Your task to perform on an android device: Open Maps and search for coffee Image 0: 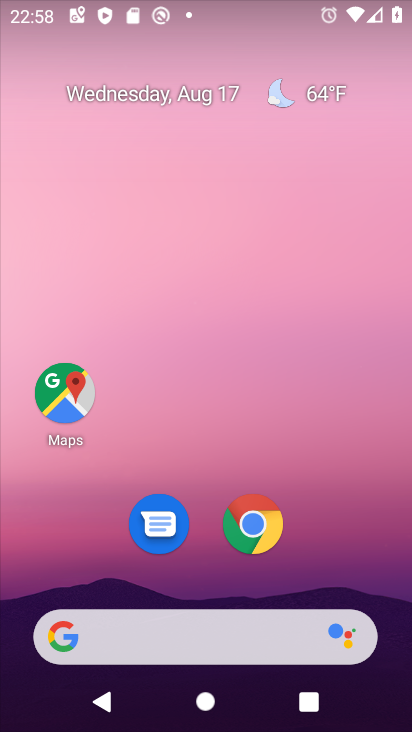
Step 0: click (70, 389)
Your task to perform on an android device: Open Maps and search for coffee Image 1: 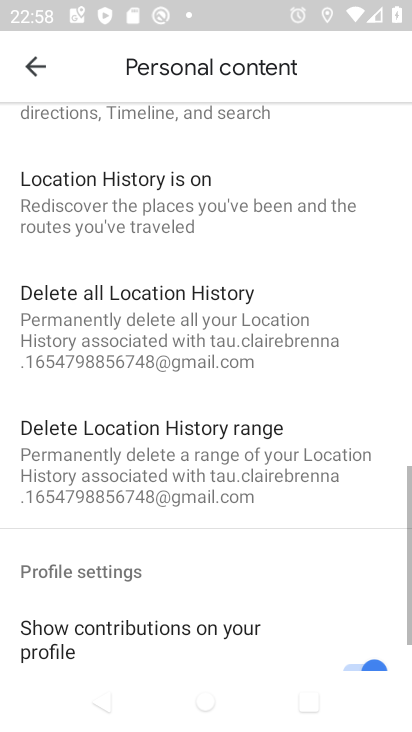
Step 1: click (39, 66)
Your task to perform on an android device: Open Maps and search for coffee Image 2: 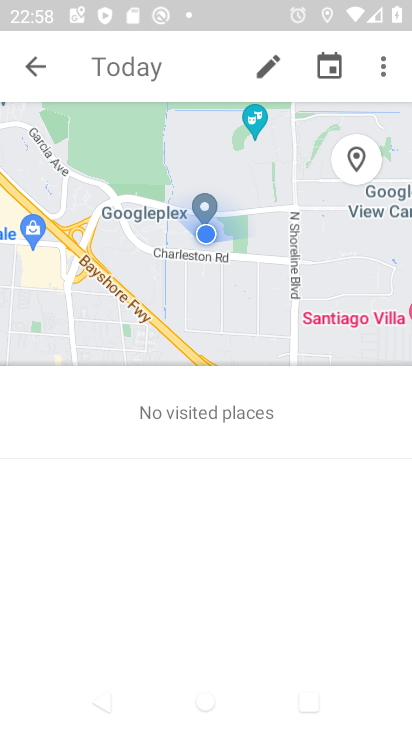
Step 2: click (39, 66)
Your task to perform on an android device: Open Maps and search for coffee Image 3: 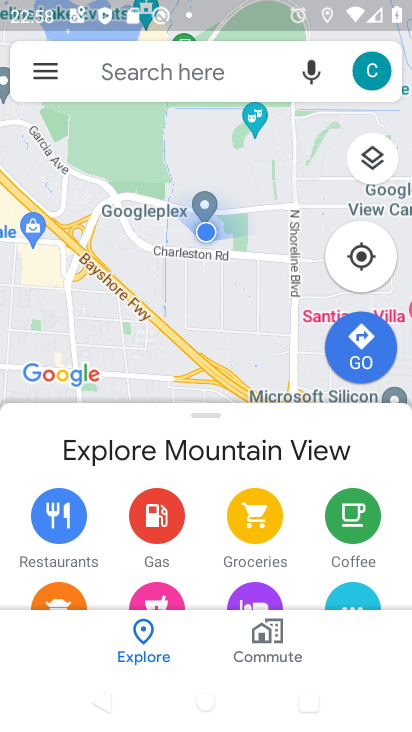
Step 3: click (132, 65)
Your task to perform on an android device: Open Maps and search for coffee Image 4: 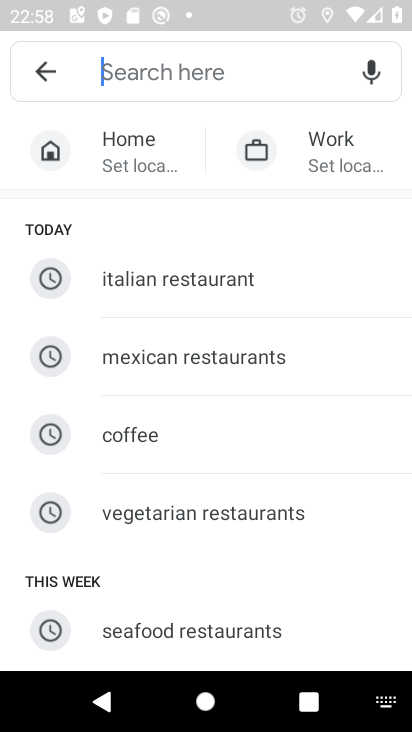
Step 4: click (124, 429)
Your task to perform on an android device: Open Maps and search for coffee Image 5: 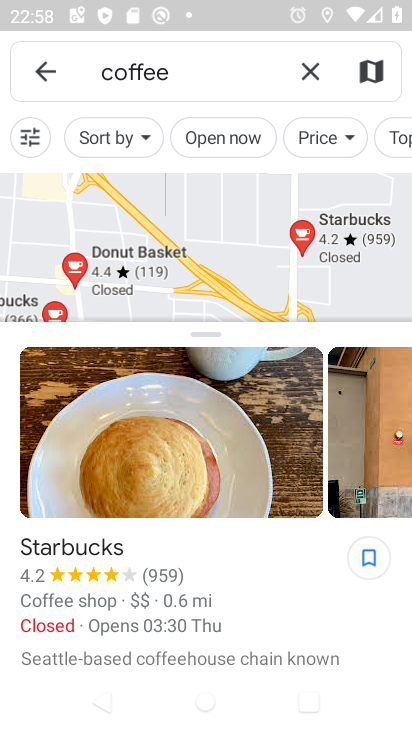
Step 5: task complete